Your task to perform on an android device: open app "Viber Messenger" (install if not already installed) and go to login screen Image 0: 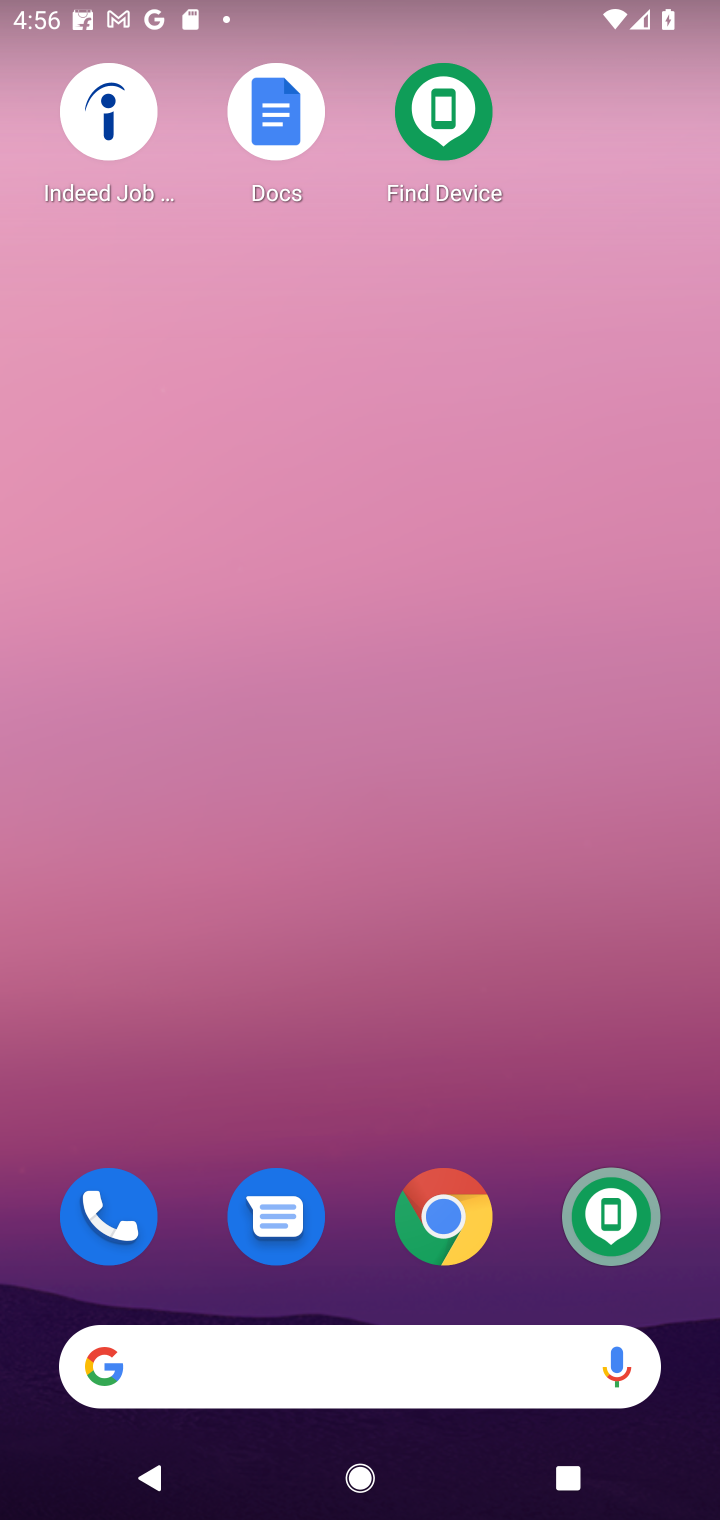
Step 0: drag from (322, 1035) to (322, 355)
Your task to perform on an android device: open app "Viber Messenger" (install if not already installed) and go to login screen Image 1: 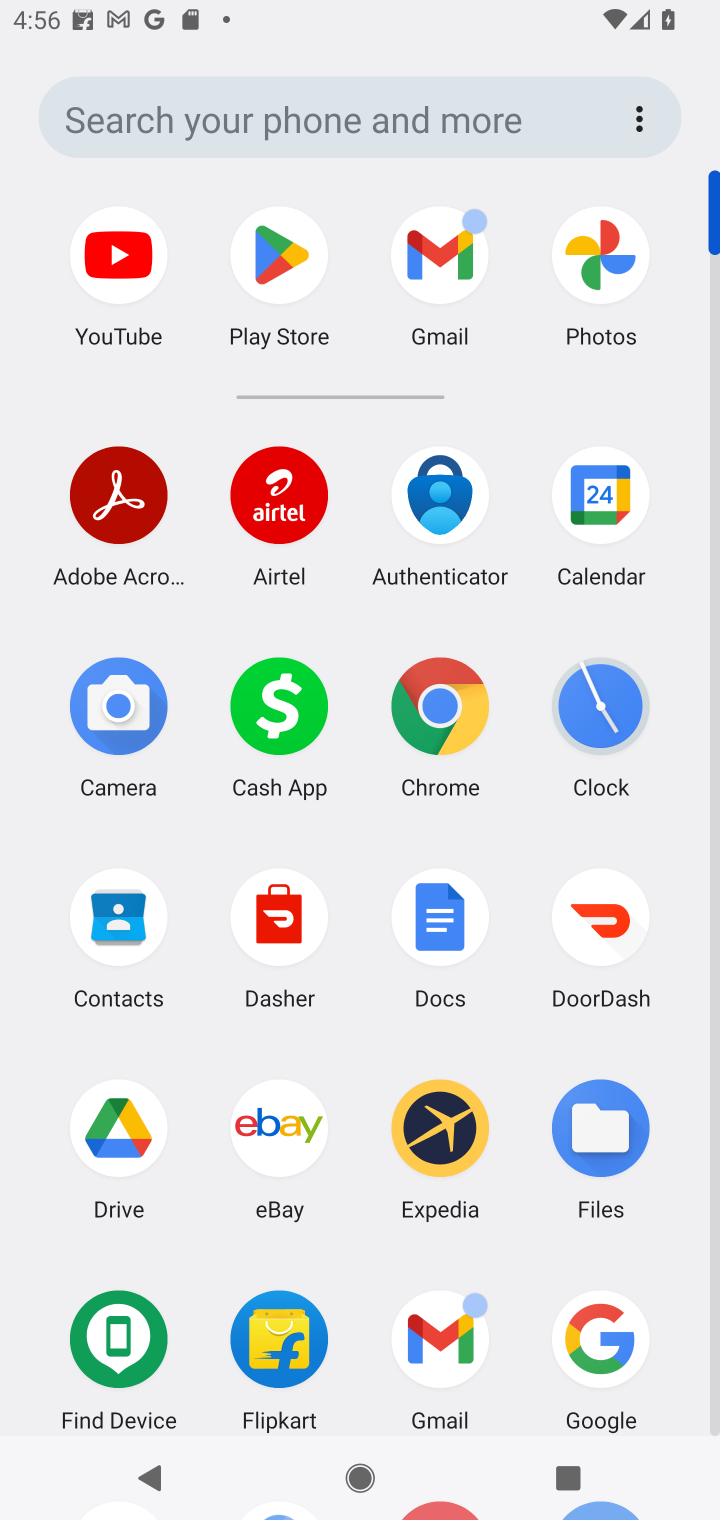
Step 1: click (246, 269)
Your task to perform on an android device: open app "Viber Messenger" (install if not already installed) and go to login screen Image 2: 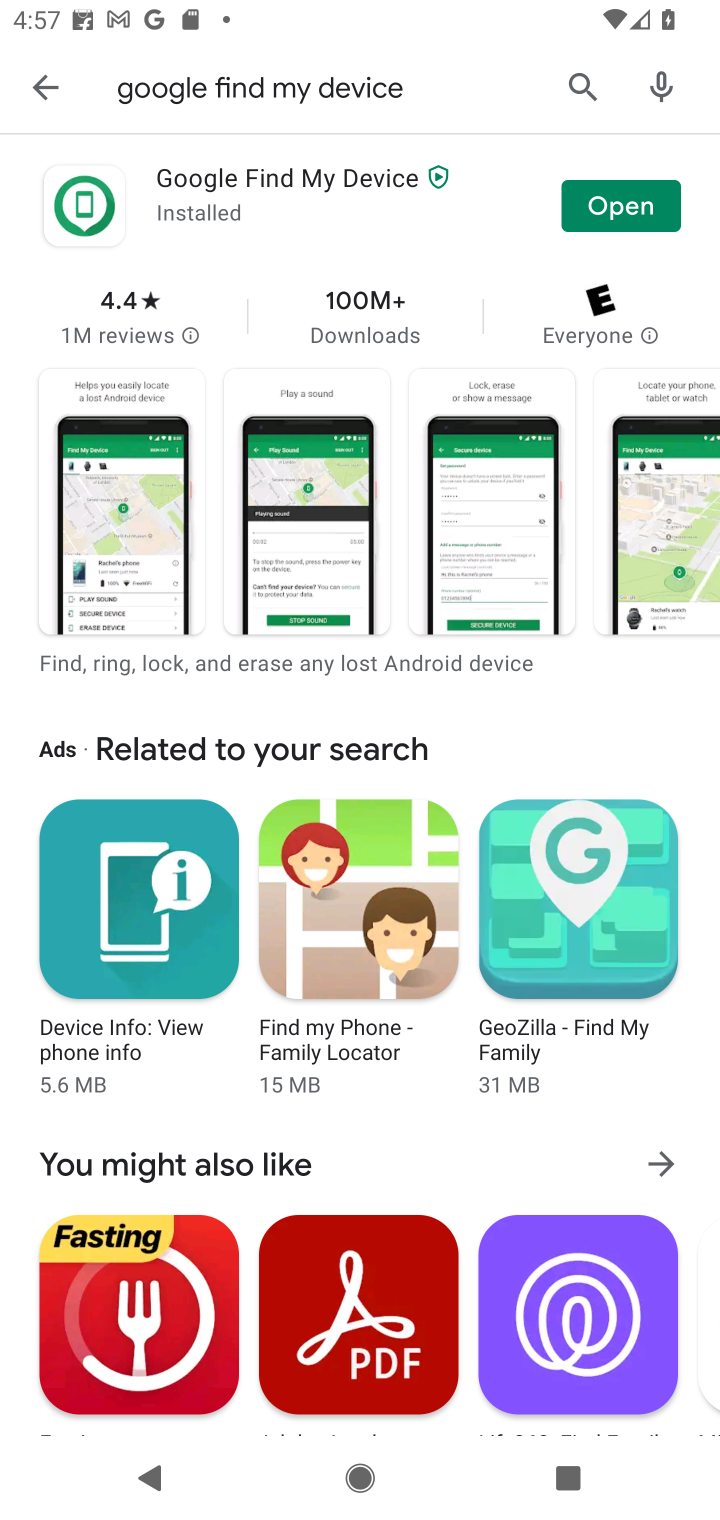
Step 2: click (573, 85)
Your task to perform on an android device: open app "Viber Messenger" (install if not already installed) and go to login screen Image 3: 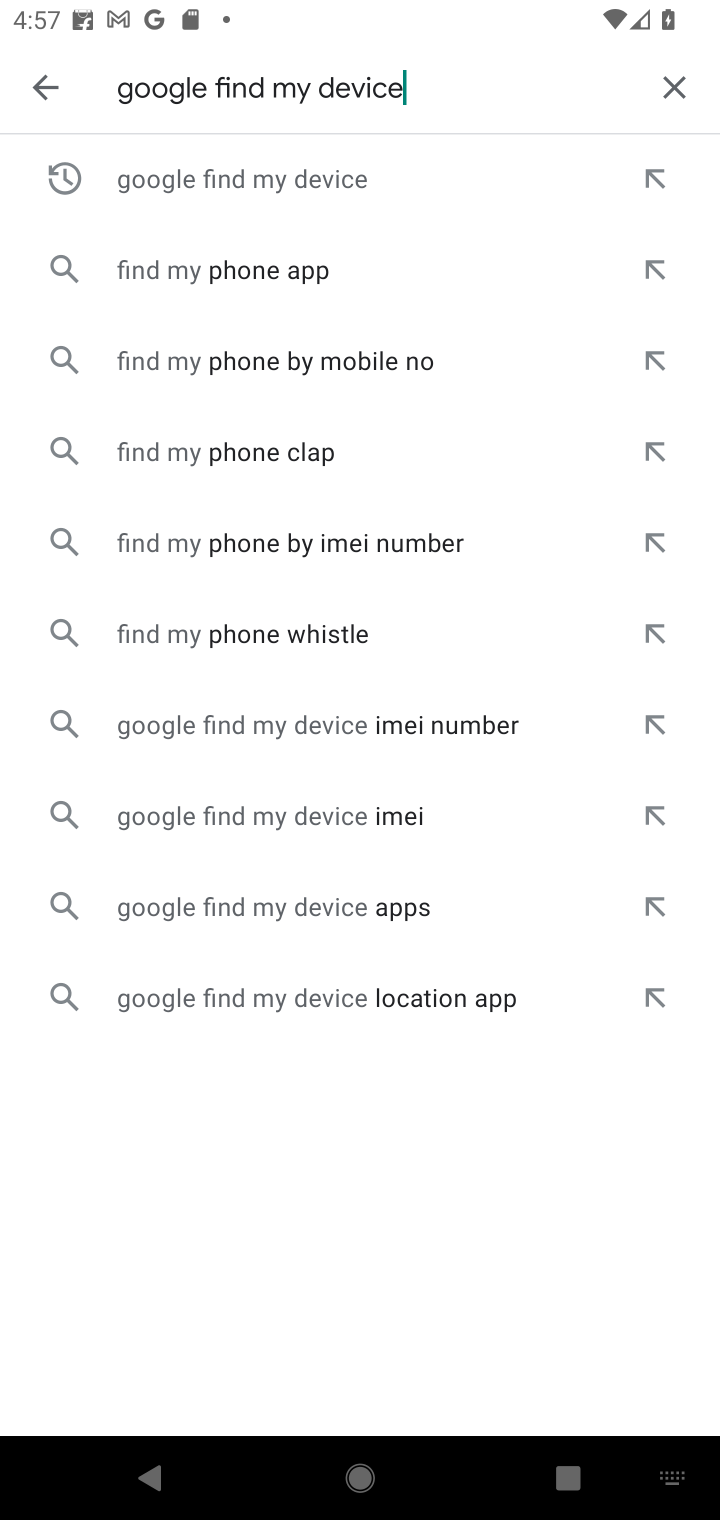
Step 3: click (654, 76)
Your task to perform on an android device: open app "Viber Messenger" (install if not already installed) and go to login screen Image 4: 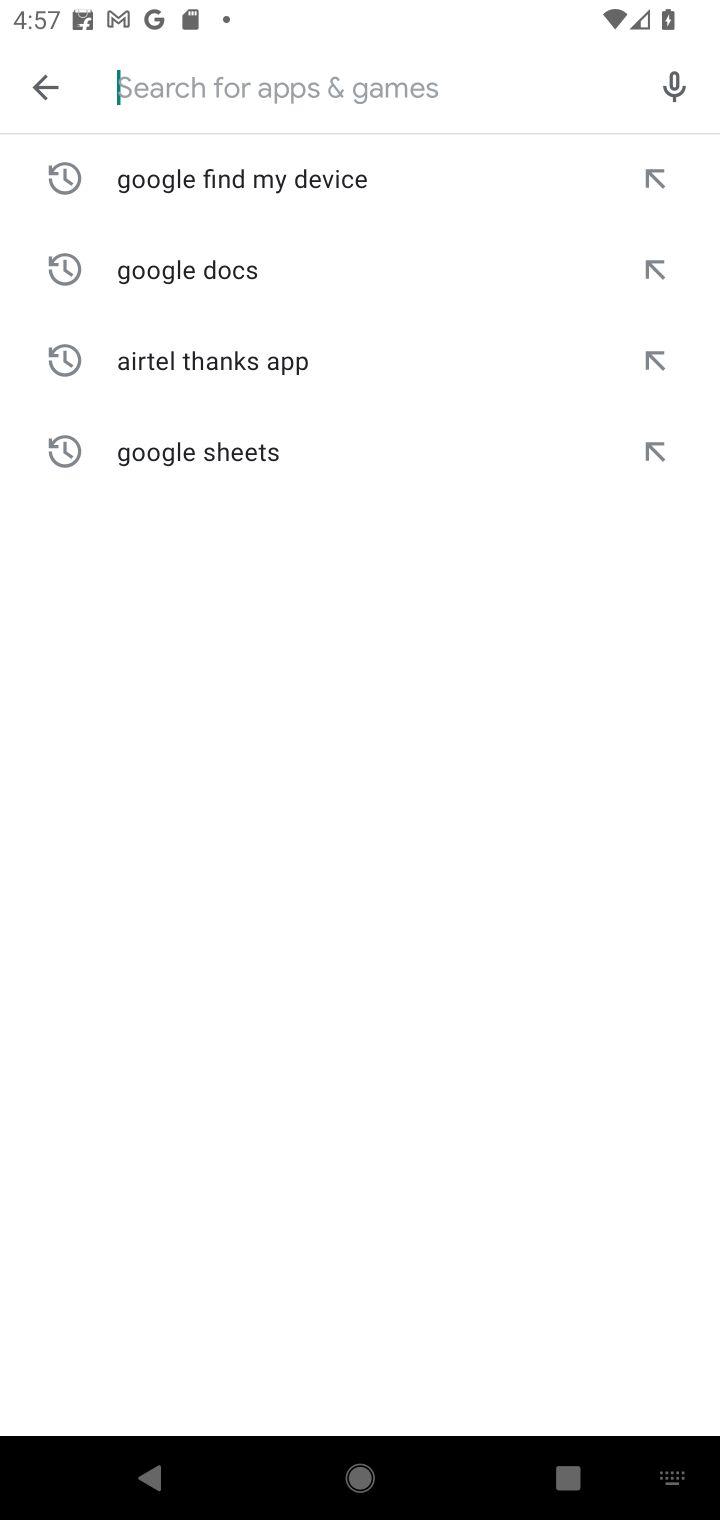
Step 4: type "Viber Messenger"
Your task to perform on an android device: open app "Viber Messenger" (install if not already installed) and go to login screen Image 5: 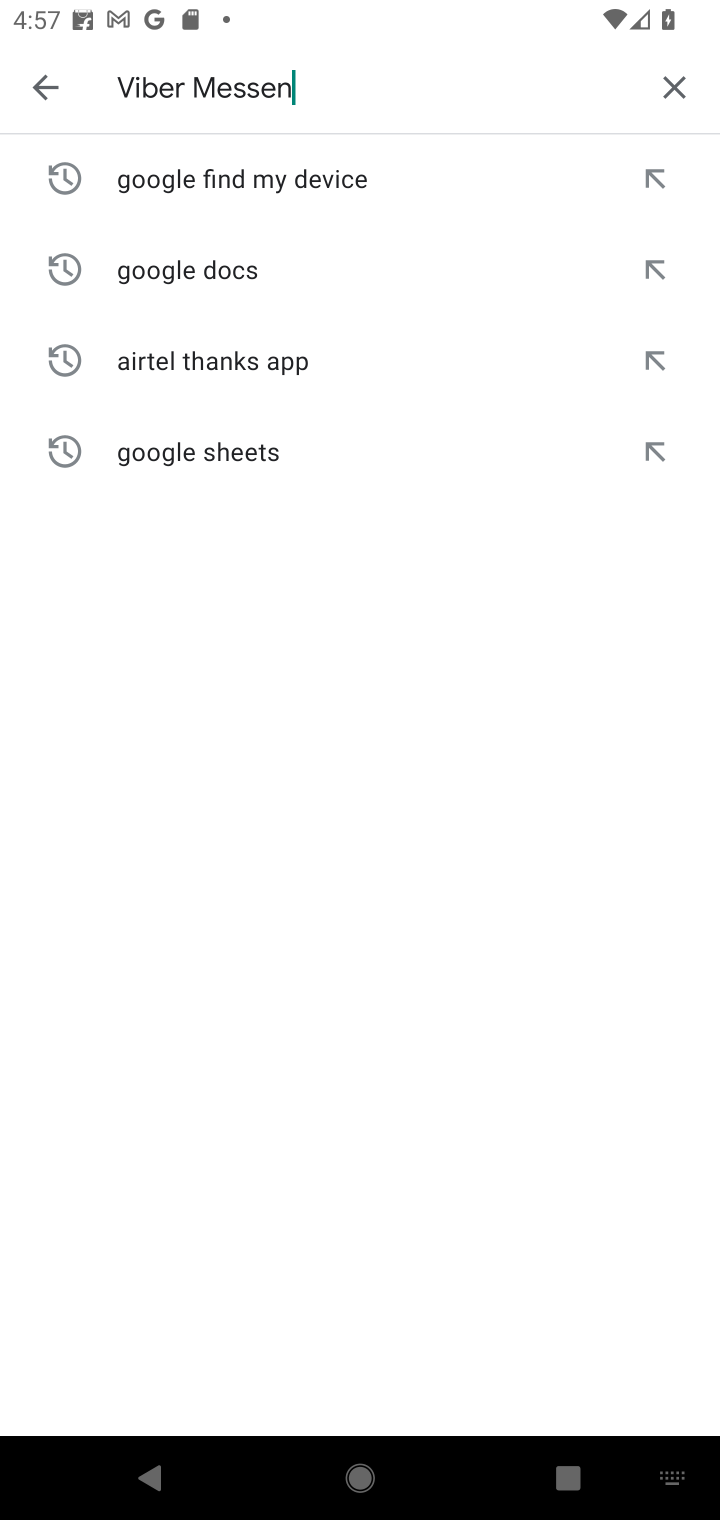
Step 5: type ""
Your task to perform on an android device: open app "Viber Messenger" (install if not already installed) and go to login screen Image 6: 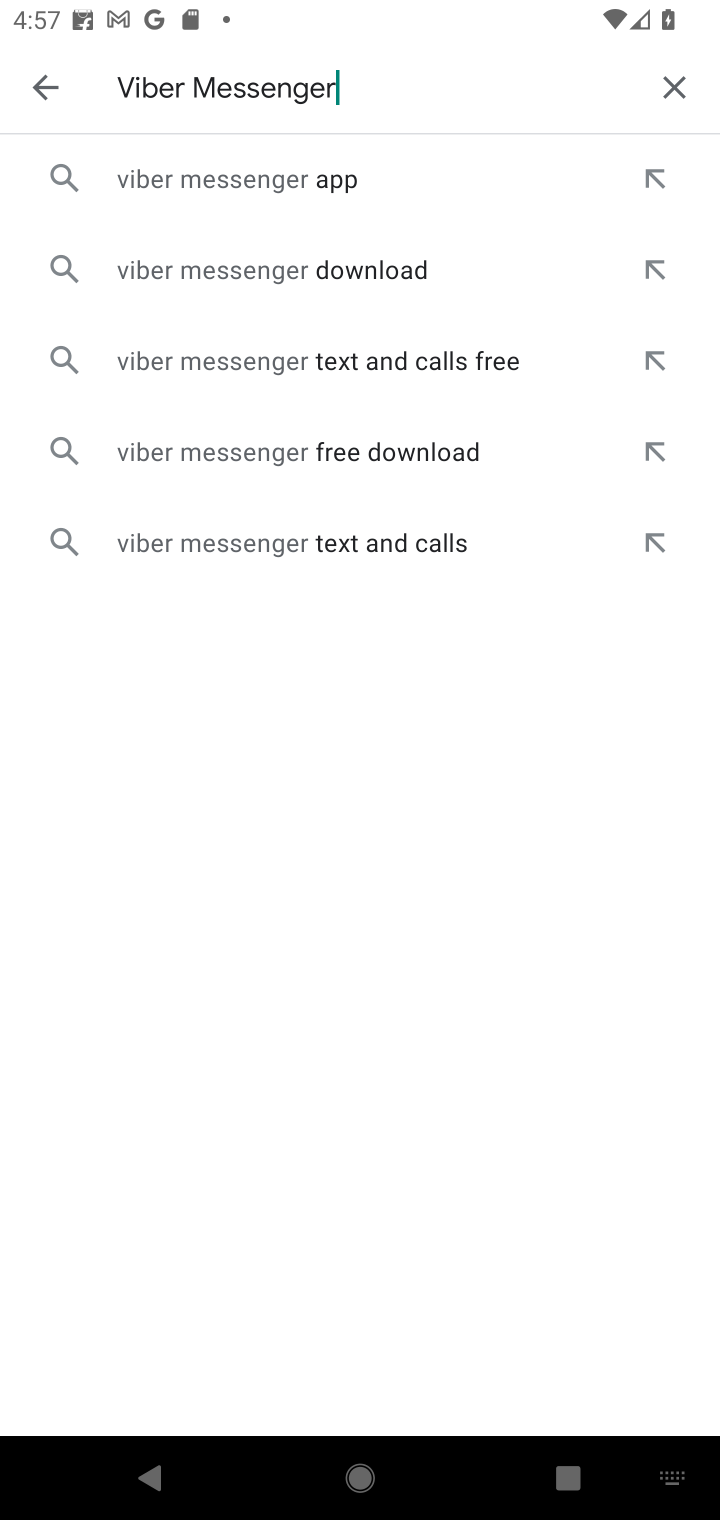
Step 6: click (351, 182)
Your task to perform on an android device: open app "Viber Messenger" (install if not already installed) and go to login screen Image 7: 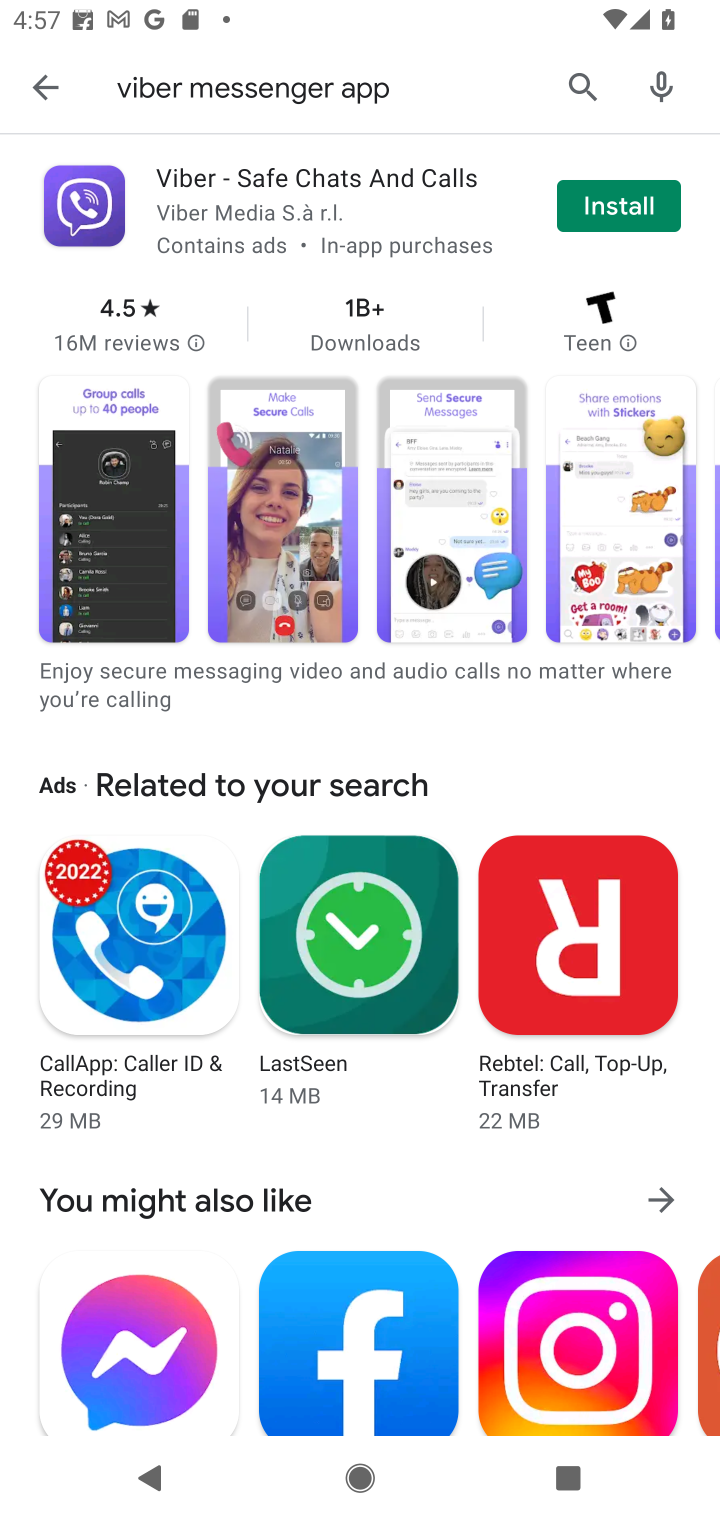
Step 7: click (614, 207)
Your task to perform on an android device: open app "Viber Messenger" (install if not already installed) and go to login screen Image 8: 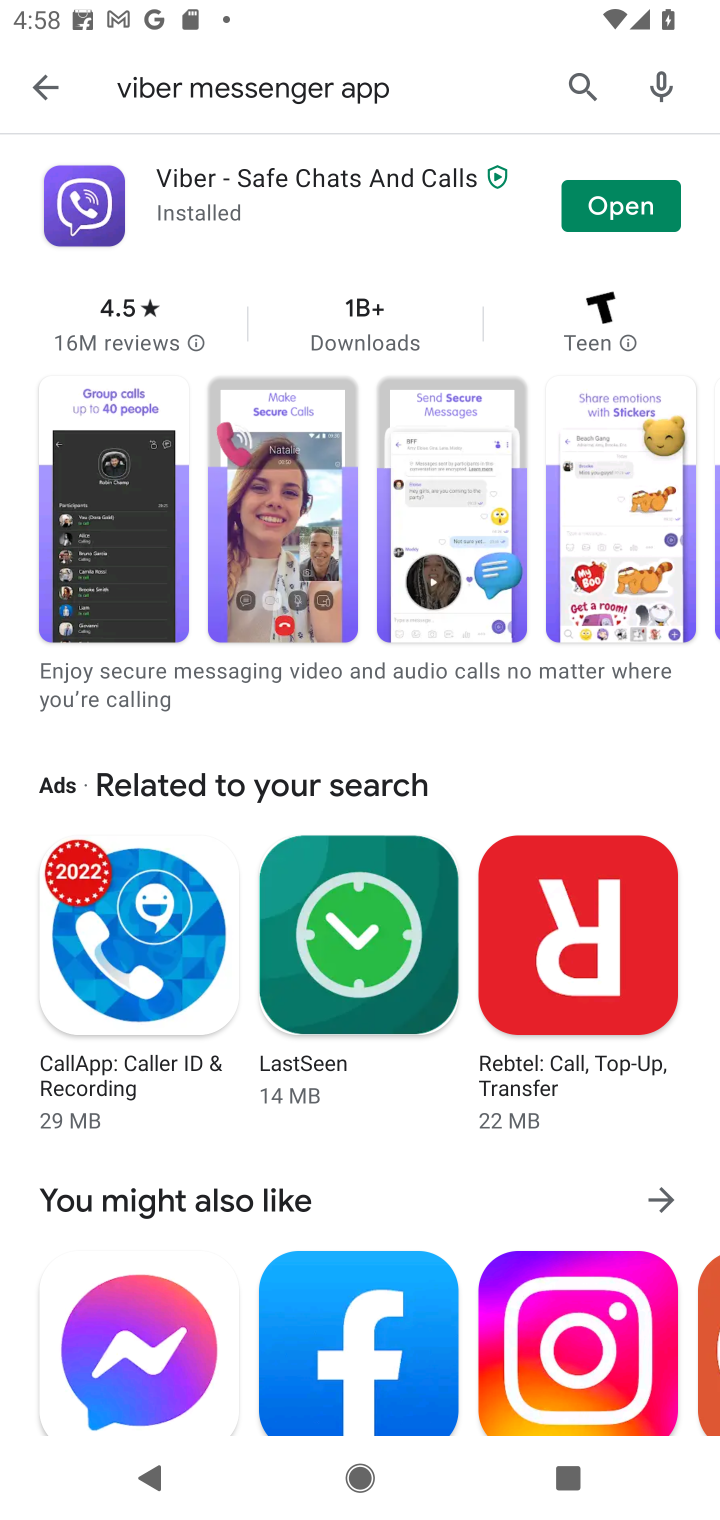
Step 8: click (619, 224)
Your task to perform on an android device: open app "Viber Messenger" (install if not already installed) and go to login screen Image 9: 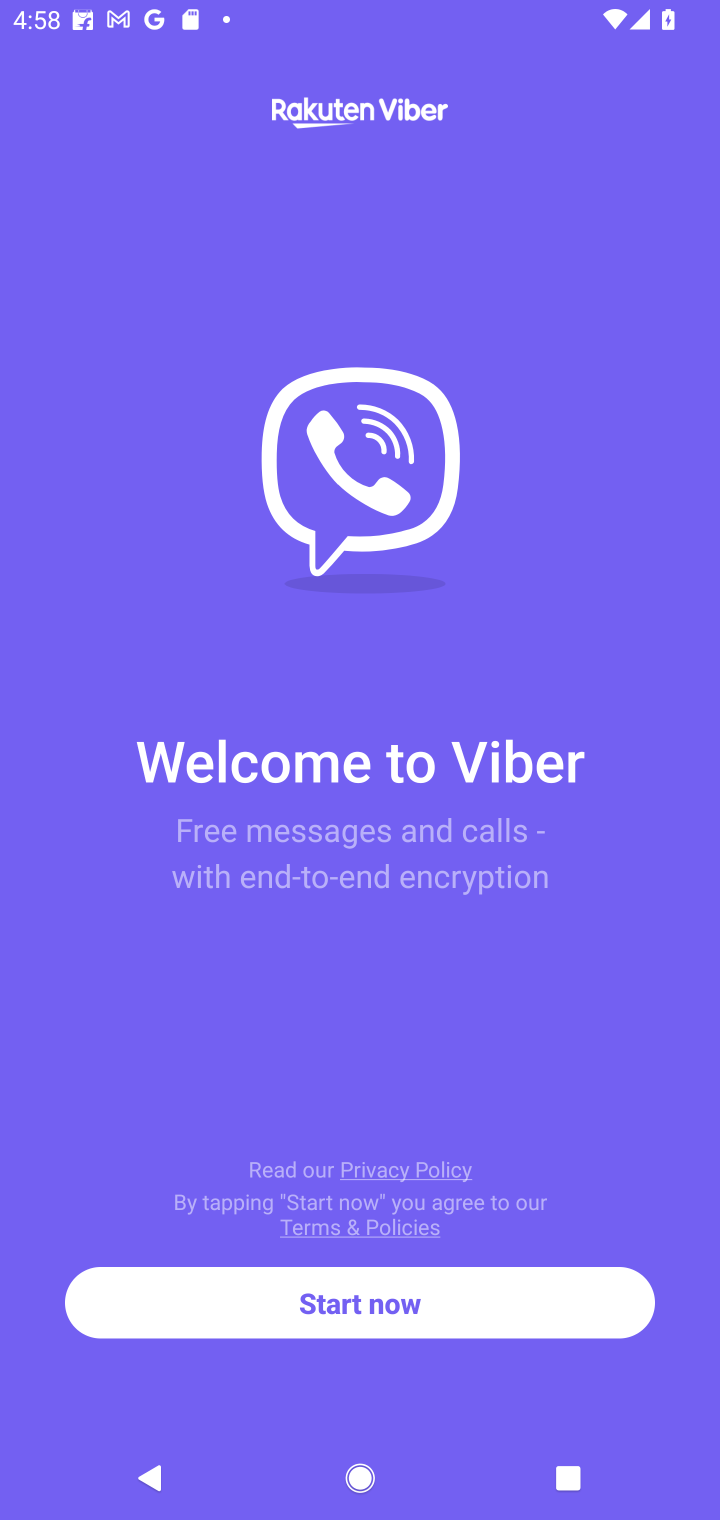
Step 9: task complete